Your task to perform on an android device: What's the weather today? Image 0: 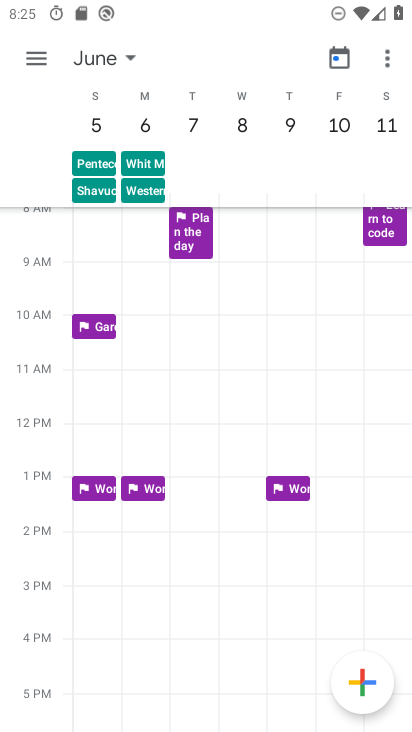
Step 0: press home button
Your task to perform on an android device: What's the weather today? Image 1: 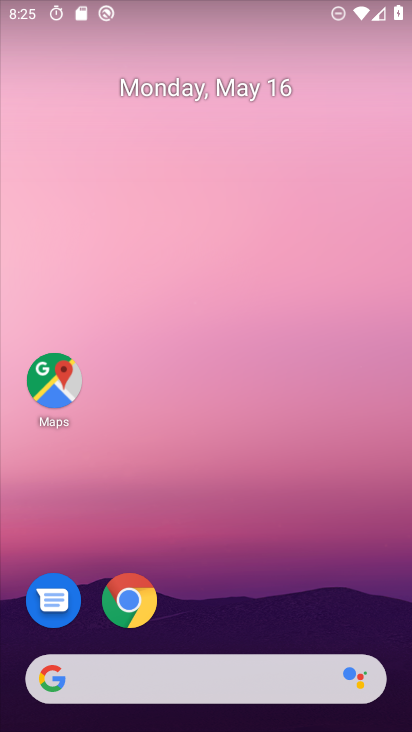
Step 1: click (60, 689)
Your task to perform on an android device: What's the weather today? Image 2: 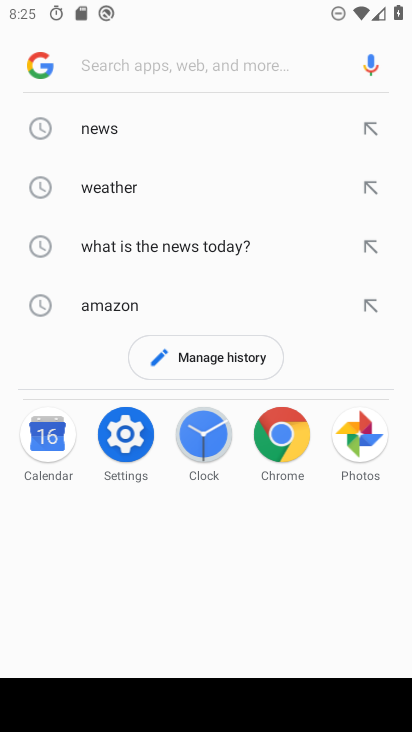
Step 2: click (130, 187)
Your task to perform on an android device: What's the weather today? Image 3: 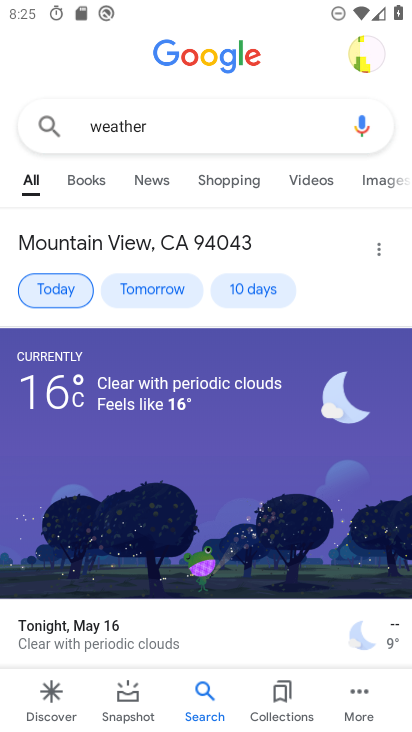
Step 3: task complete